Your task to perform on an android device: Go to Reddit.com Image 0: 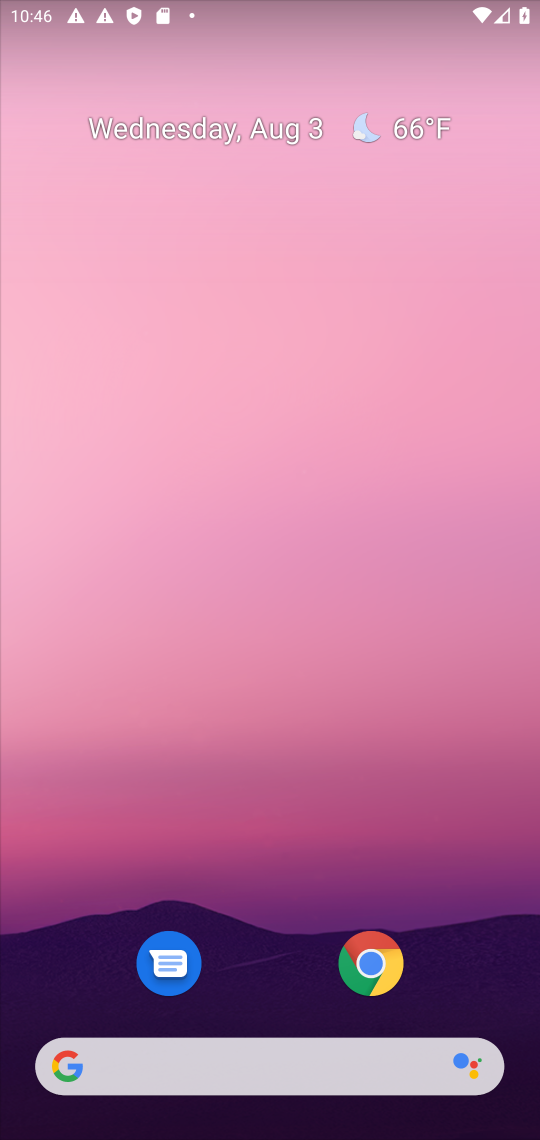
Step 0: click (370, 969)
Your task to perform on an android device: Go to Reddit.com Image 1: 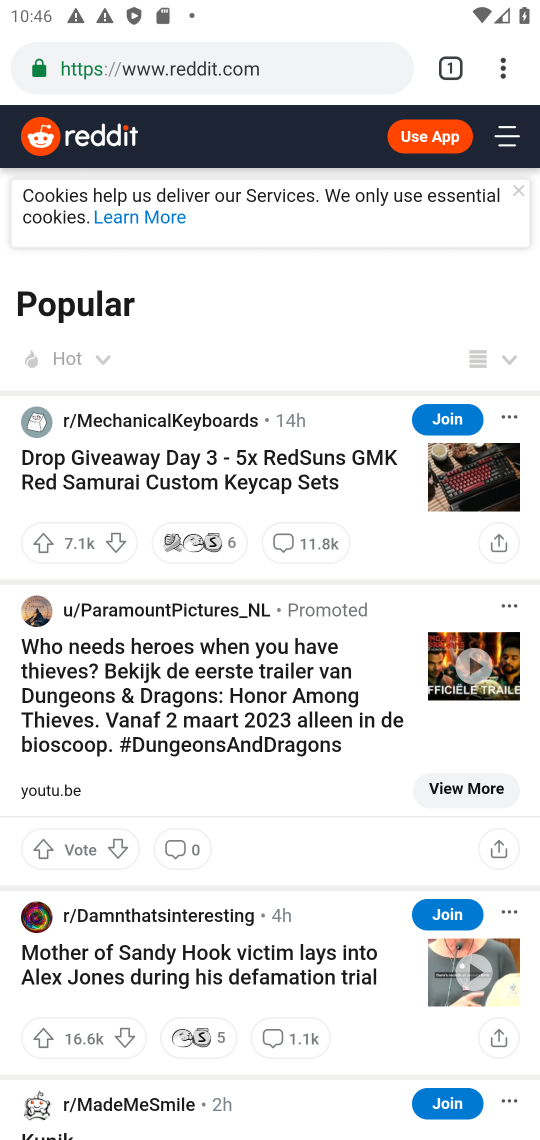
Step 1: task complete